Your task to perform on an android device: change the clock display to analog Image 0: 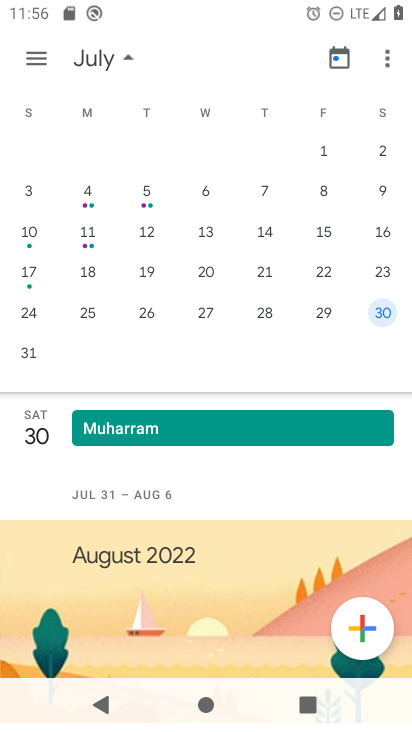
Step 0: press home button
Your task to perform on an android device: change the clock display to analog Image 1: 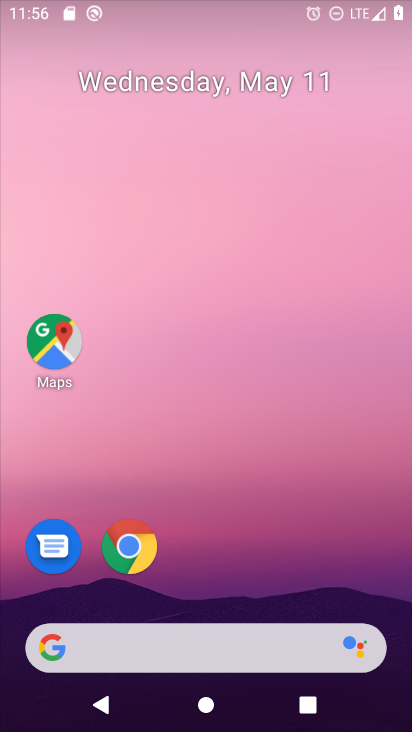
Step 1: drag from (395, 628) to (245, 18)
Your task to perform on an android device: change the clock display to analog Image 2: 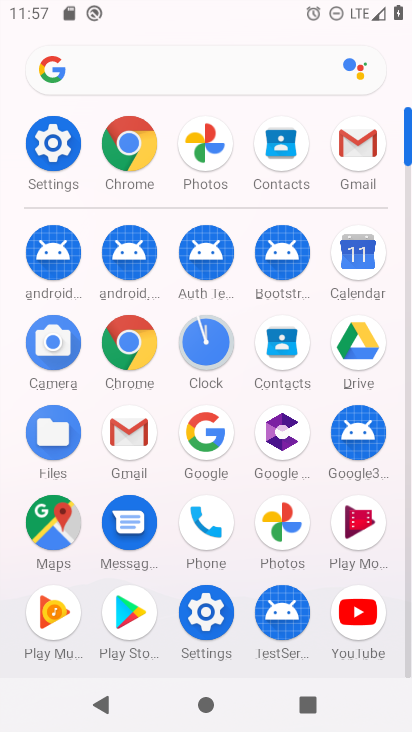
Step 2: click (216, 333)
Your task to perform on an android device: change the clock display to analog Image 3: 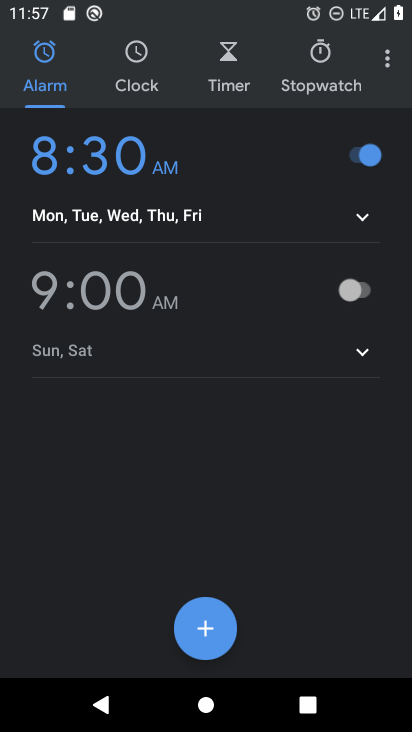
Step 3: click (389, 56)
Your task to perform on an android device: change the clock display to analog Image 4: 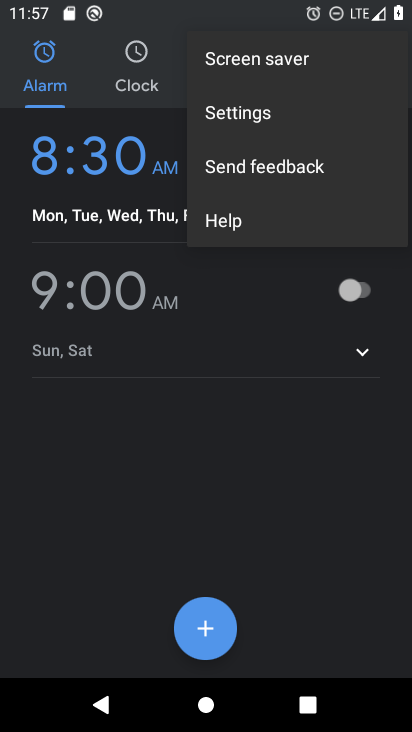
Step 4: click (241, 117)
Your task to perform on an android device: change the clock display to analog Image 5: 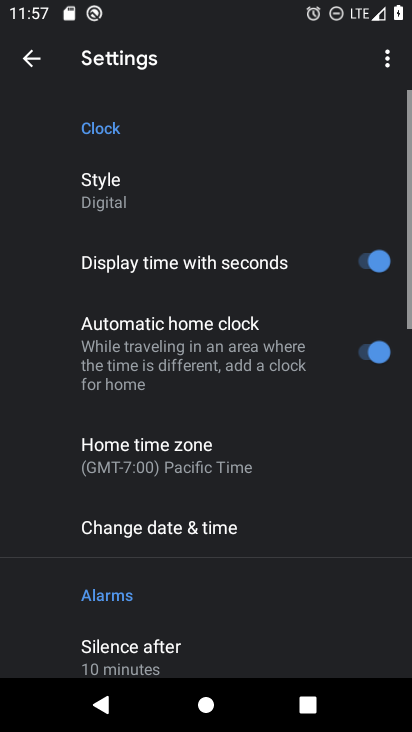
Step 5: click (75, 208)
Your task to perform on an android device: change the clock display to analog Image 6: 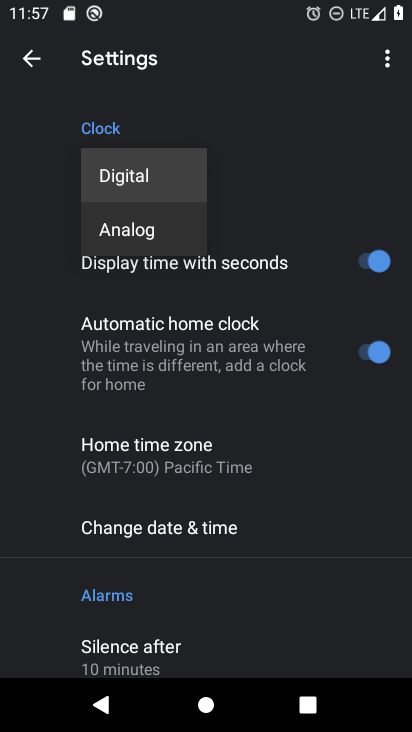
Step 6: click (132, 240)
Your task to perform on an android device: change the clock display to analog Image 7: 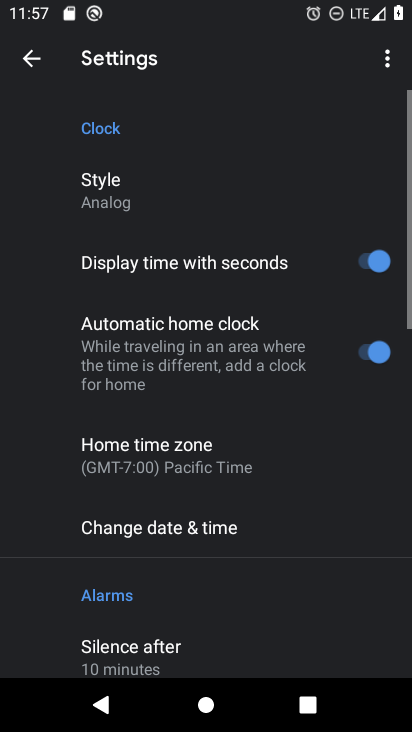
Step 7: task complete